Your task to perform on an android device: star an email in the gmail app Image 0: 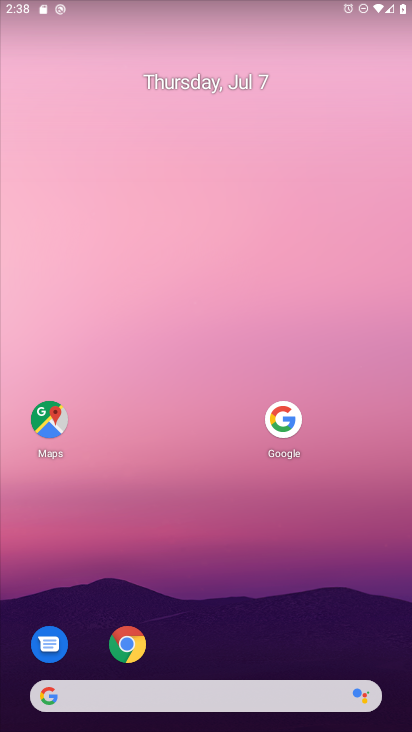
Step 0: drag from (154, 699) to (301, 93)
Your task to perform on an android device: star an email in the gmail app Image 1: 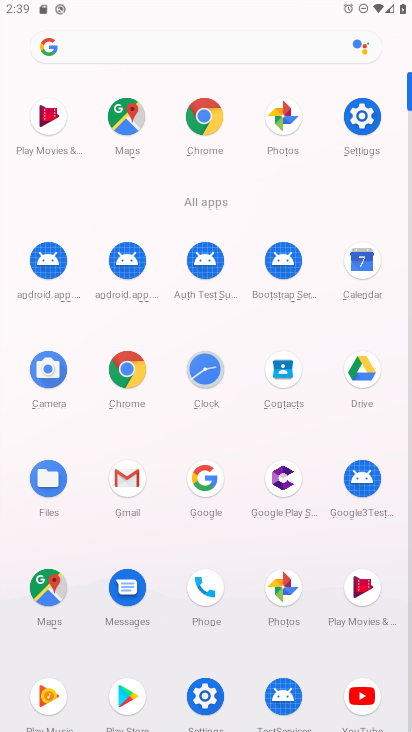
Step 1: click (130, 479)
Your task to perform on an android device: star an email in the gmail app Image 2: 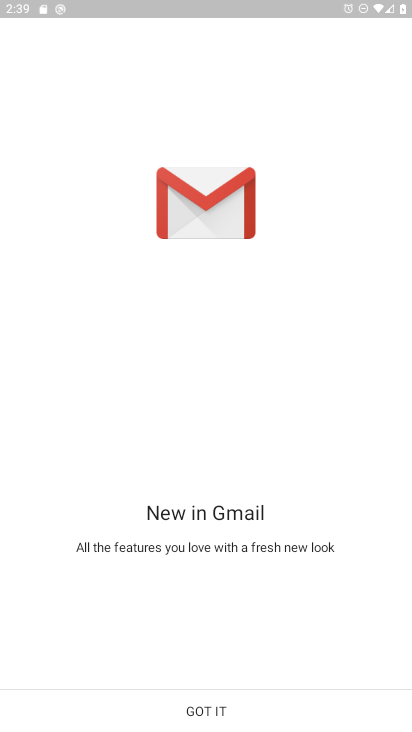
Step 2: click (217, 702)
Your task to perform on an android device: star an email in the gmail app Image 3: 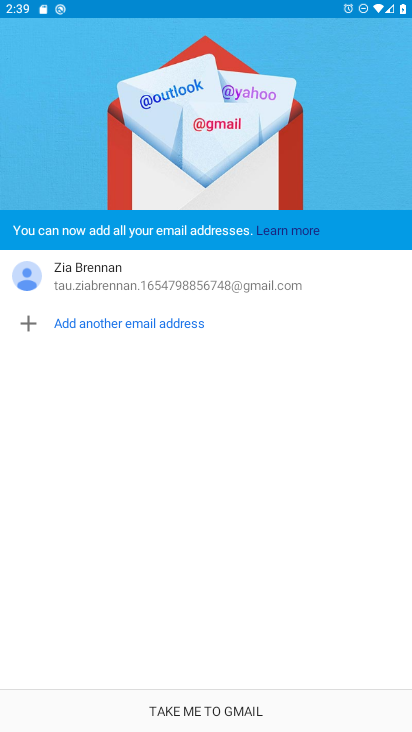
Step 3: click (217, 703)
Your task to perform on an android device: star an email in the gmail app Image 4: 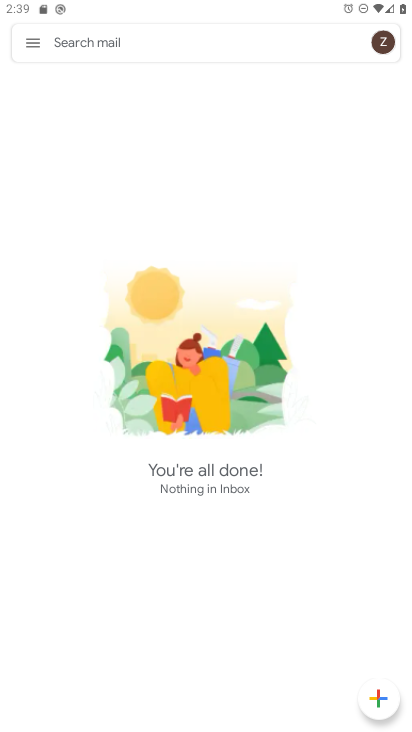
Step 4: task complete